Your task to perform on an android device: remove spam from my inbox in the gmail app Image 0: 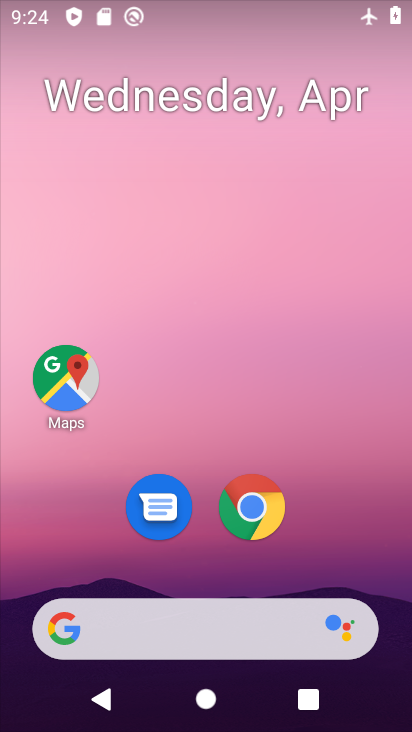
Step 0: click (254, 508)
Your task to perform on an android device: remove spam from my inbox in the gmail app Image 1: 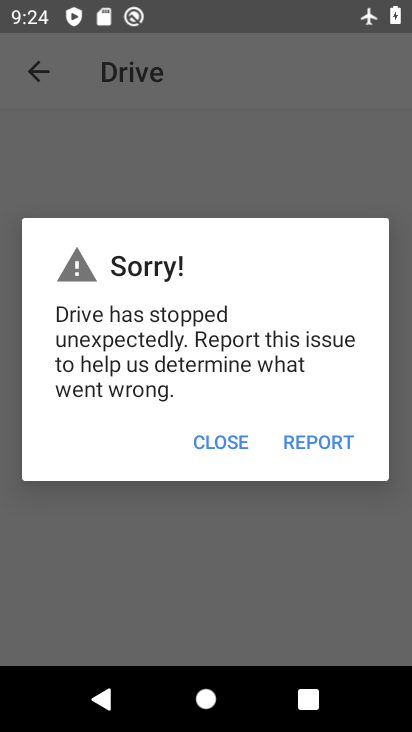
Step 1: press home button
Your task to perform on an android device: remove spam from my inbox in the gmail app Image 2: 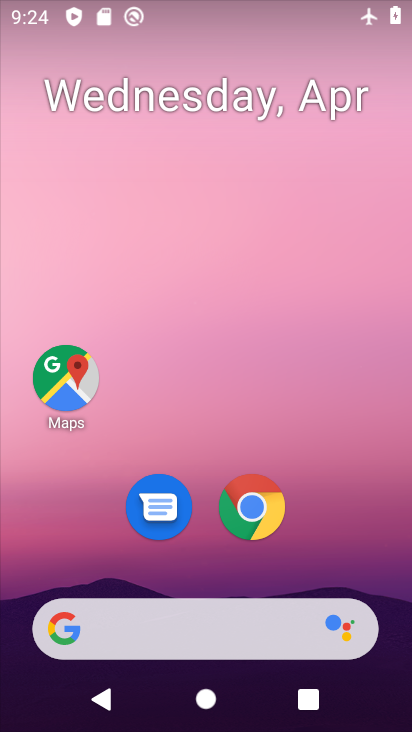
Step 2: drag from (324, 576) to (334, 151)
Your task to perform on an android device: remove spam from my inbox in the gmail app Image 3: 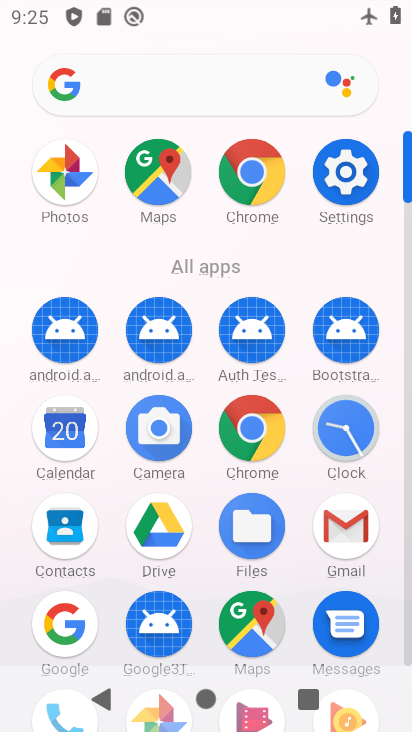
Step 3: click (355, 540)
Your task to perform on an android device: remove spam from my inbox in the gmail app Image 4: 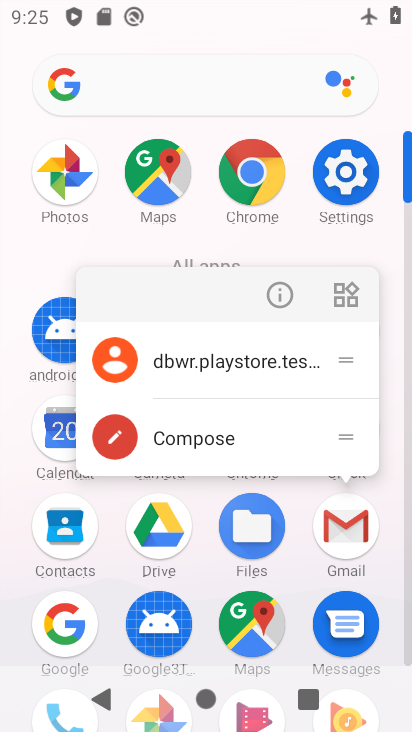
Step 4: click (355, 541)
Your task to perform on an android device: remove spam from my inbox in the gmail app Image 5: 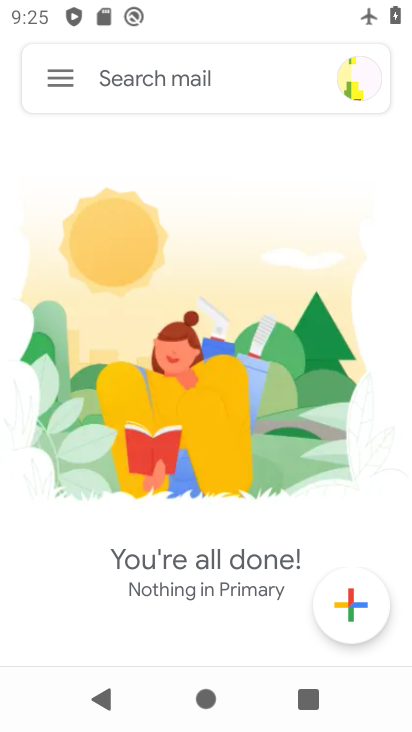
Step 5: click (57, 71)
Your task to perform on an android device: remove spam from my inbox in the gmail app Image 6: 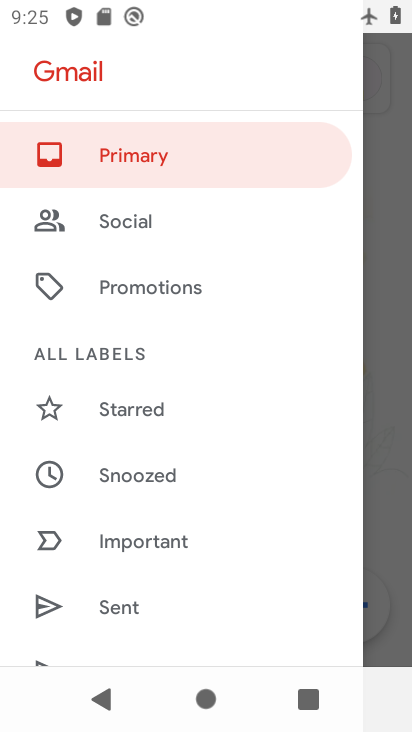
Step 6: drag from (126, 606) to (127, 228)
Your task to perform on an android device: remove spam from my inbox in the gmail app Image 7: 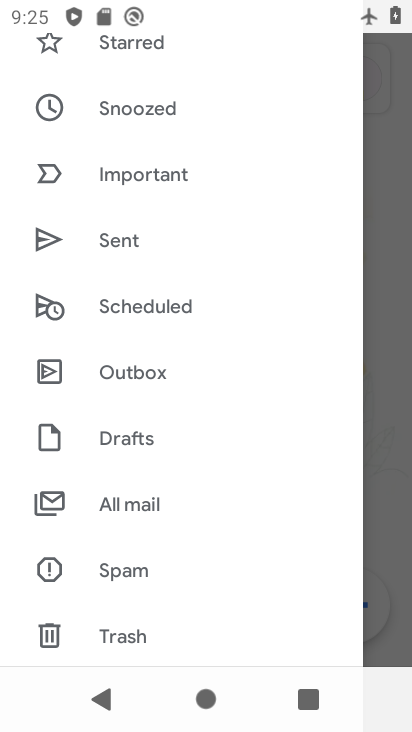
Step 7: click (124, 566)
Your task to perform on an android device: remove spam from my inbox in the gmail app Image 8: 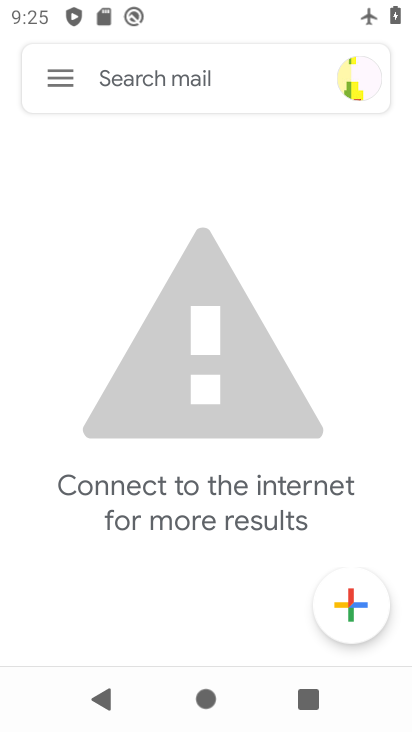
Step 8: task complete